Your task to perform on an android device: Open settings on Google Maps Image 0: 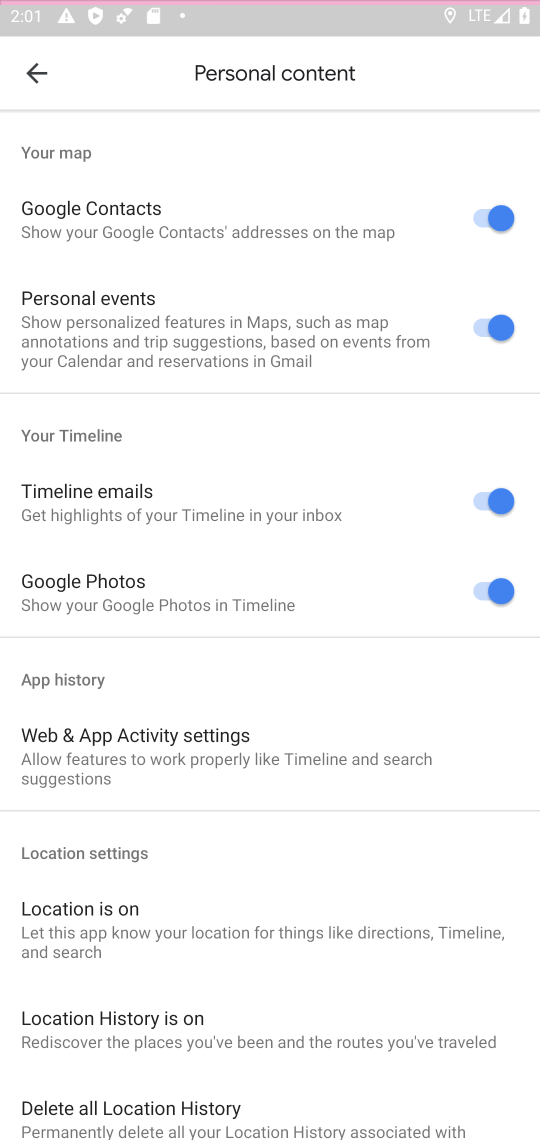
Step 0: click (413, 37)
Your task to perform on an android device: Open settings on Google Maps Image 1: 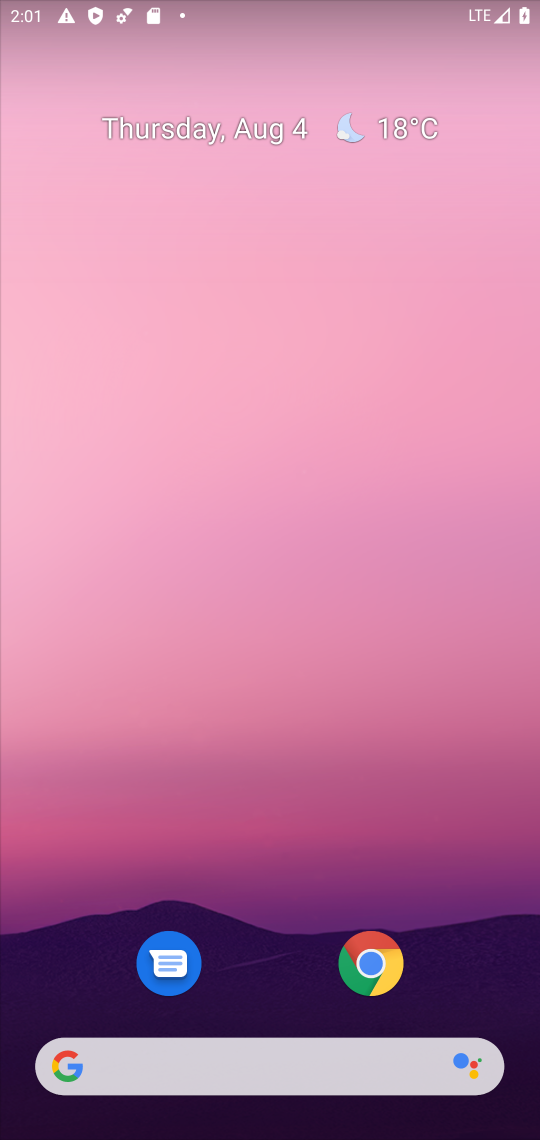
Step 1: drag from (258, 1062) to (251, 387)
Your task to perform on an android device: Open settings on Google Maps Image 2: 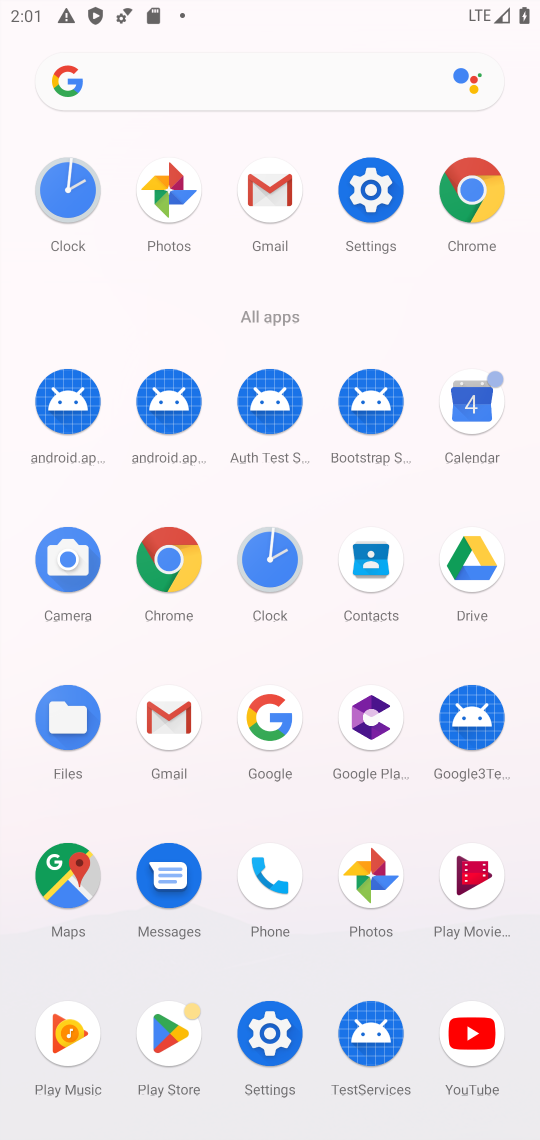
Step 2: click (46, 883)
Your task to perform on an android device: Open settings on Google Maps Image 3: 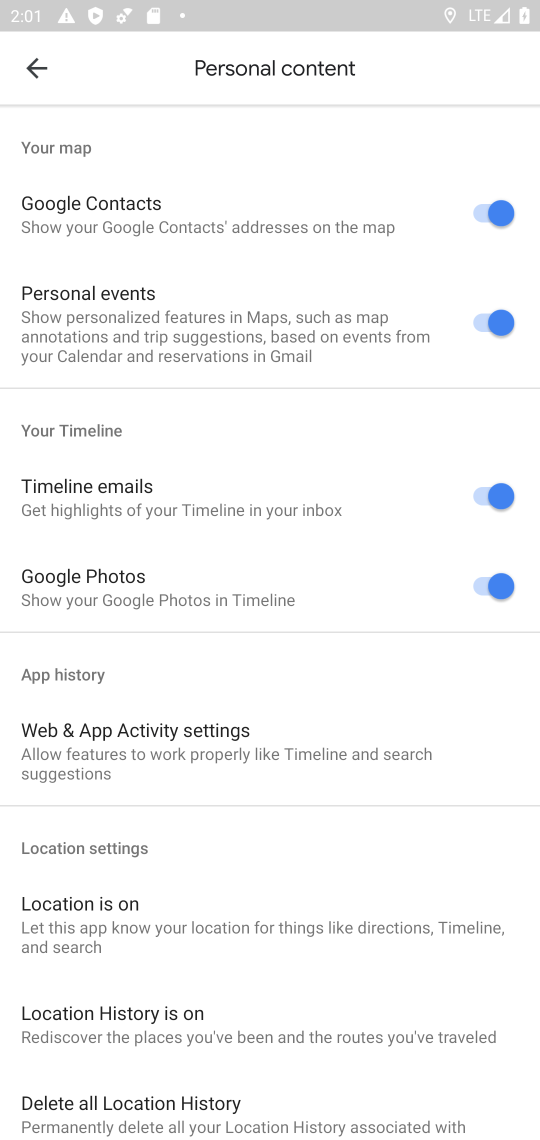
Step 3: click (35, 86)
Your task to perform on an android device: Open settings on Google Maps Image 4: 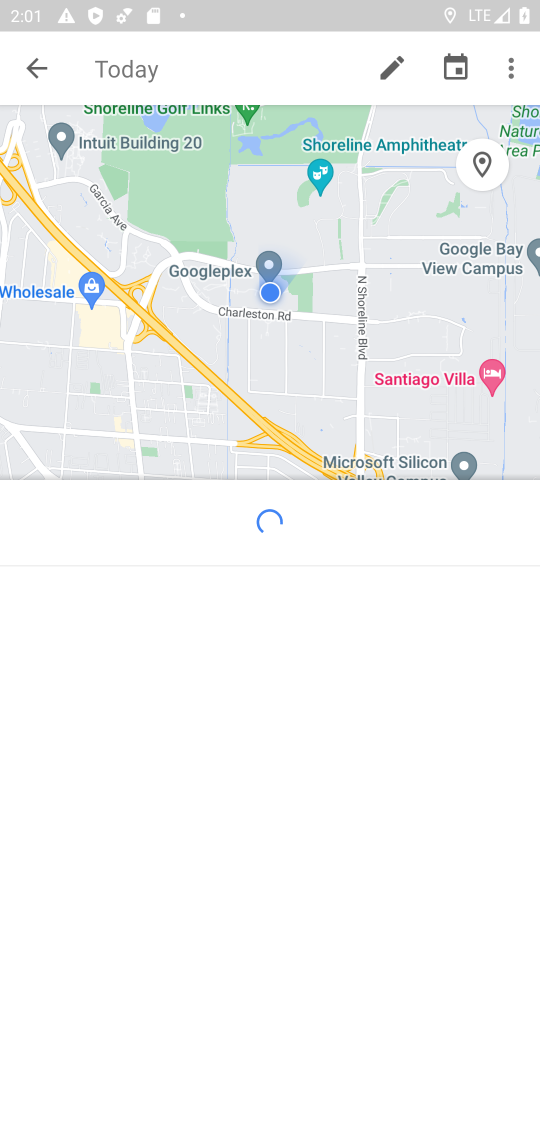
Step 4: click (35, 86)
Your task to perform on an android device: Open settings on Google Maps Image 5: 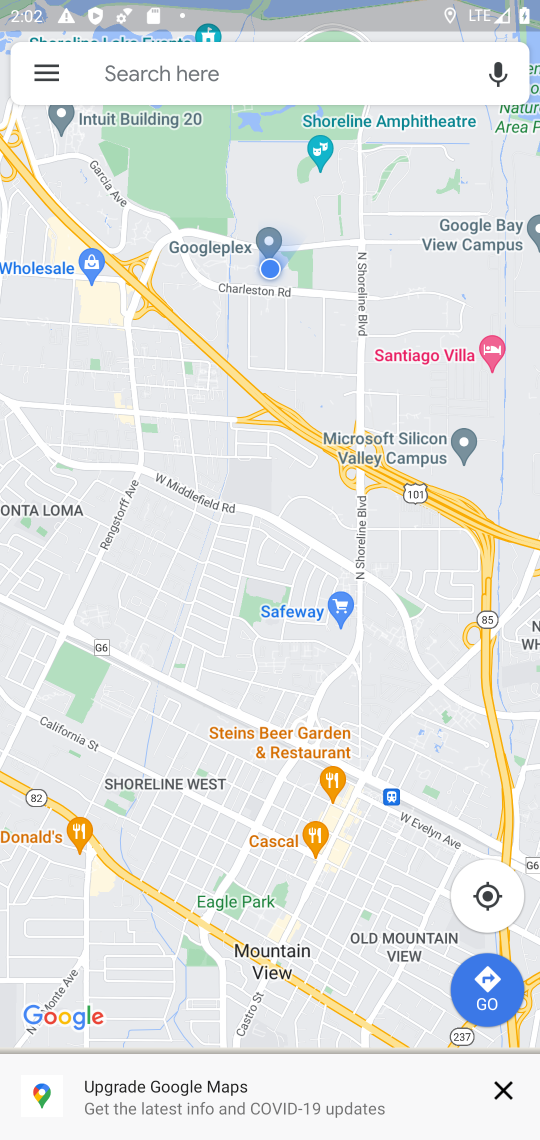
Step 5: click (40, 78)
Your task to perform on an android device: Open settings on Google Maps Image 6: 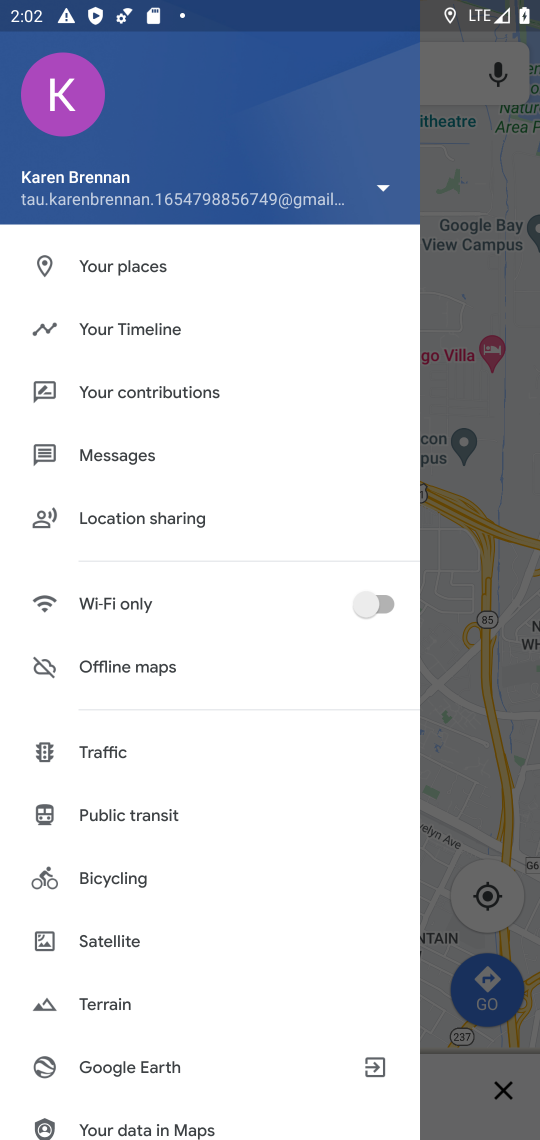
Step 6: drag from (144, 1040) to (226, 552)
Your task to perform on an android device: Open settings on Google Maps Image 7: 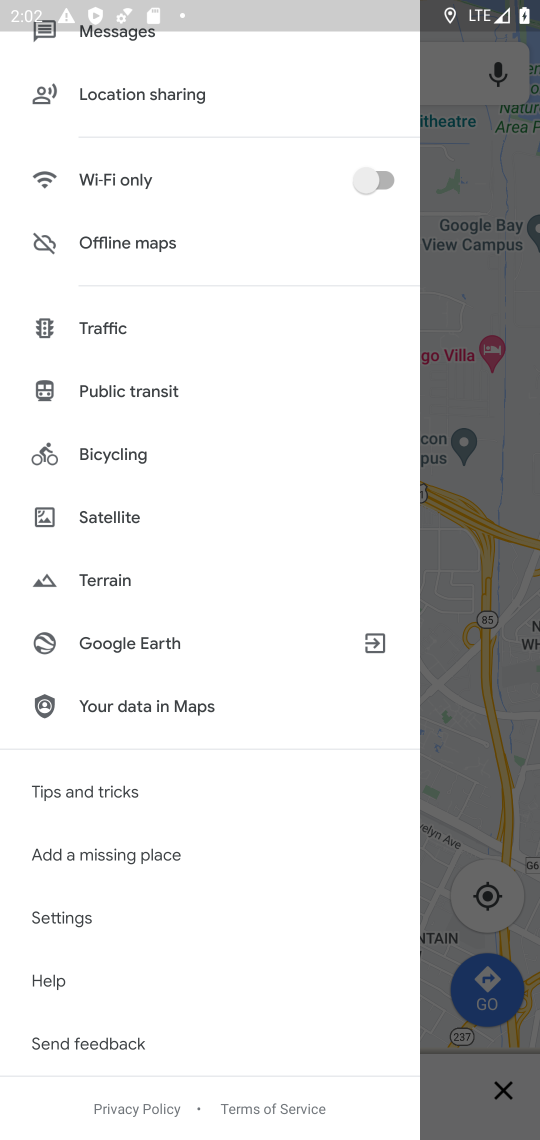
Step 7: click (112, 913)
Your task to perform on an android device: Open settings on Google Maps Image 8: 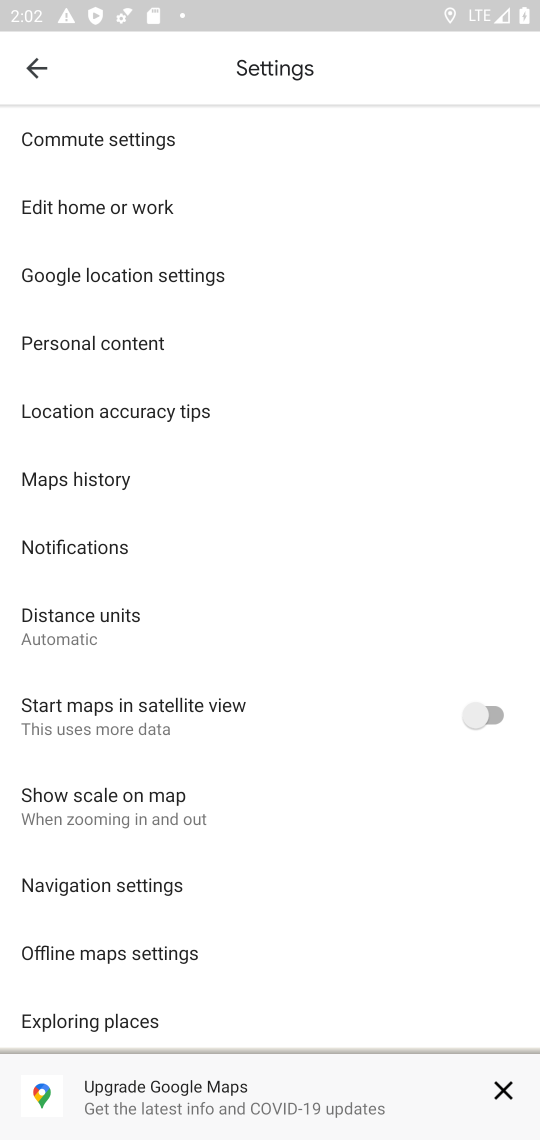
Step 8: task complete